Your task to perform on an android device: turn notification dots on Image 0: 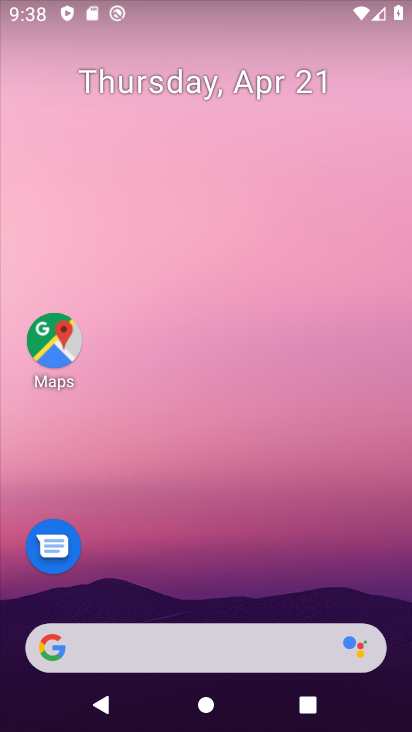
Step 0: drag from (147, 623) to (268, 92)
Your task to perform on an android device: turn notification dots on Image 1: 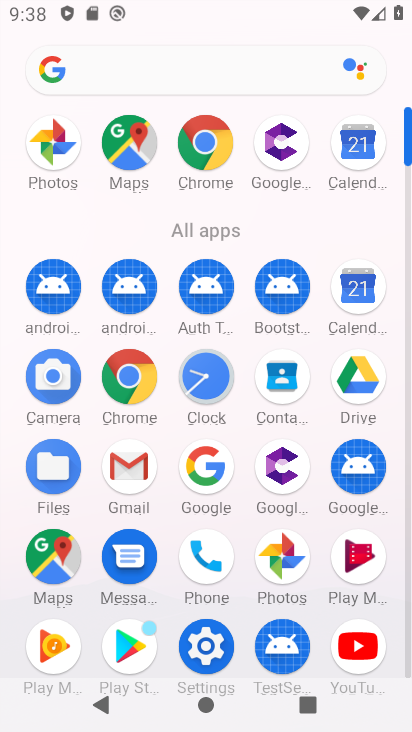
Step 1: click (190, 650)
Your task to perform on an android device: turn notification dots on Image 2: 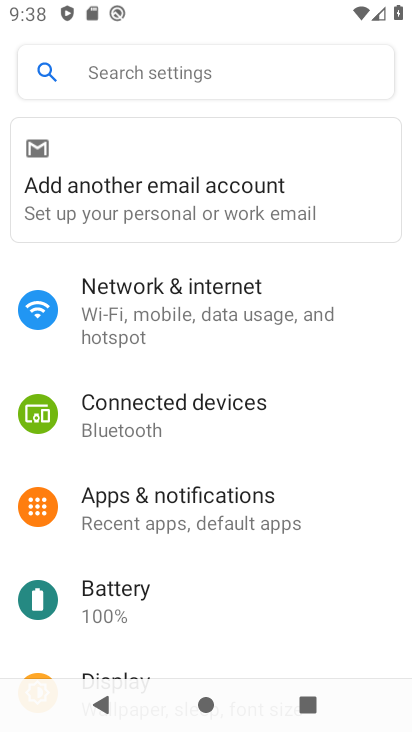
Step 2: drag from (189, 620) to (324, 234)
Your task to perform on an android device: turn notification dots on Image 3: 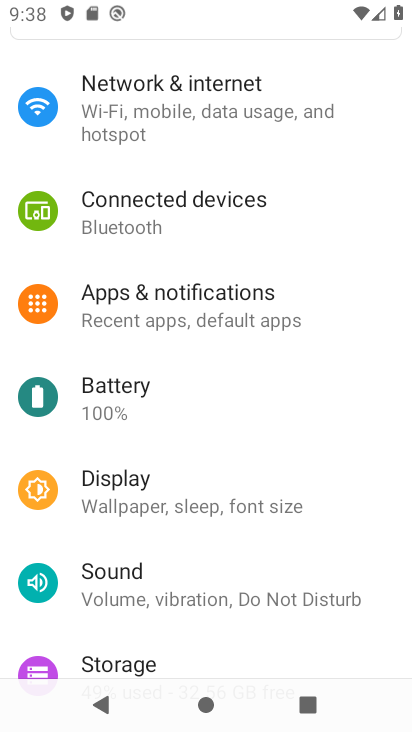
Step 3: click (253, 304)
Your task to perform on an android device: turn notification dots on Image 4: 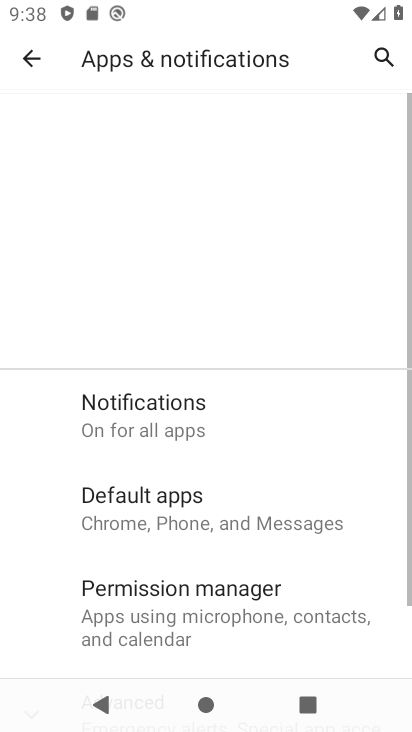
Step 4: drag from (212, 618) to (322, 287)
Your task to perform on an android device: turn notification dots on Image 5: 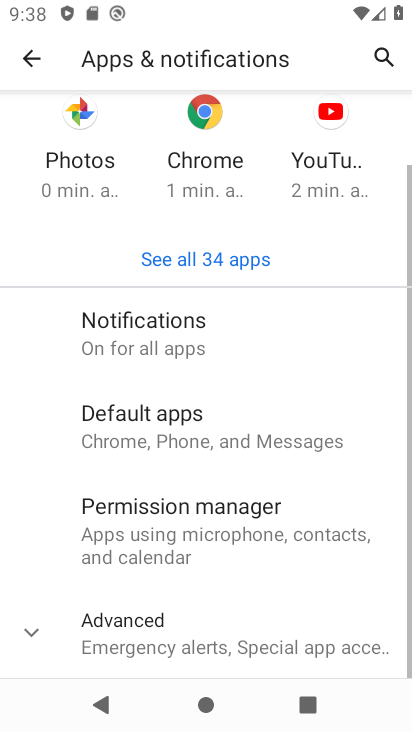
Step 5: click (198, 631)
Your task to perform on an android device: turn notification dots on Image 6: 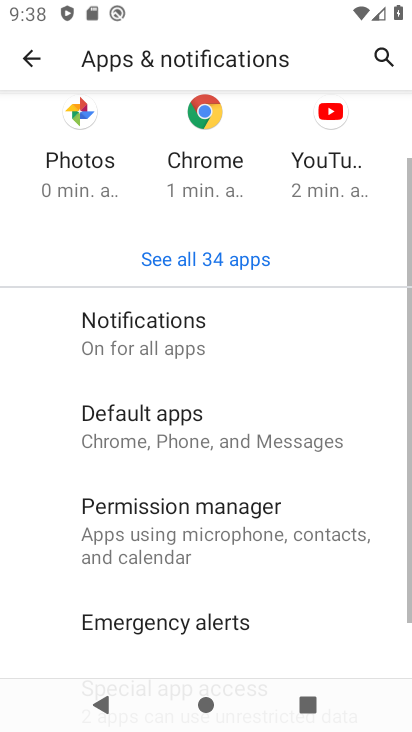
Step 6: drag from (195, 637) to (289, 333)
Your task to perform on an android device: turn notification dots on Image 7: 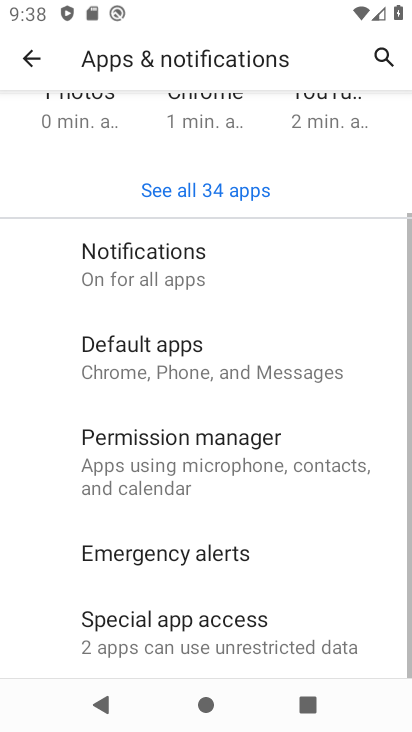
Step 7: click (265, 263)
Your task to perform on an android device: turn notification dots on Image 8: 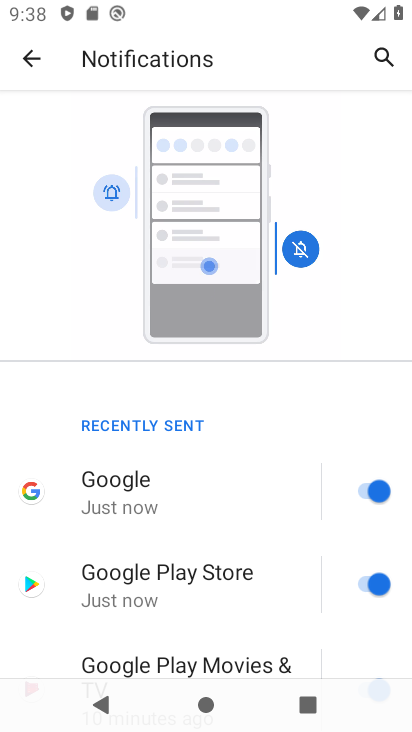
Step 8: drag from (143, 669) to (372, 46)
Your task to perform on an android device: turn notification dots on Image 9: 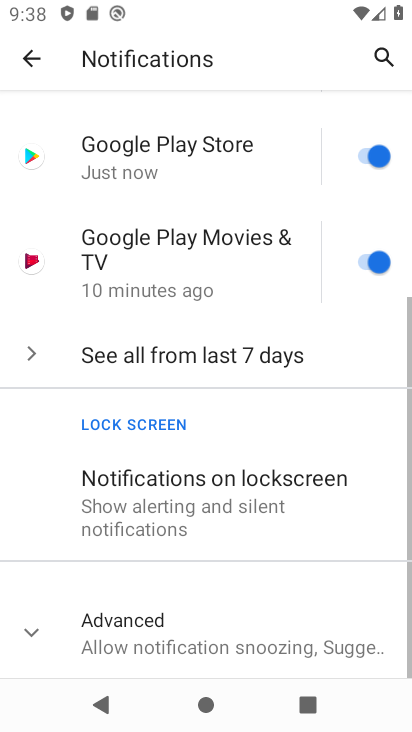
Step 9: click (247, 637)
Your task to perform on an android device: turn notification dots on Image 10: 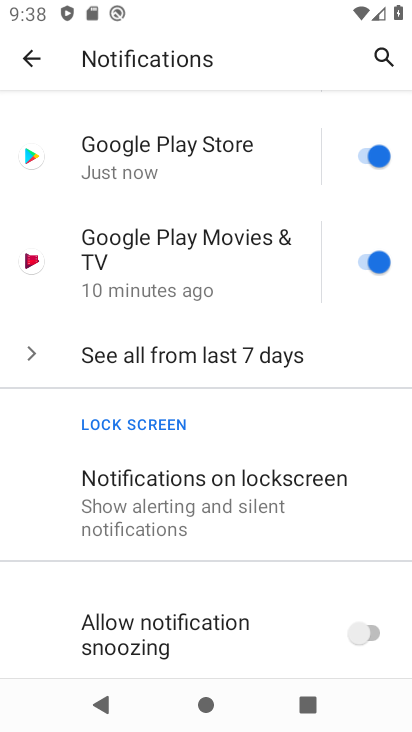
Step 10: task complete